Your task to perform on an android device: change your default location settings in chrome Image 0: 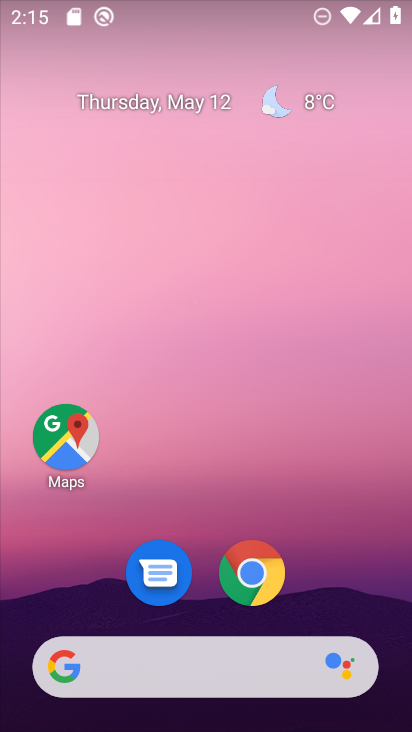
Step 0: drag from (387, 597) to (209, 190)
Your task to perform on an android device: change your default location settings in chrome Image 1: 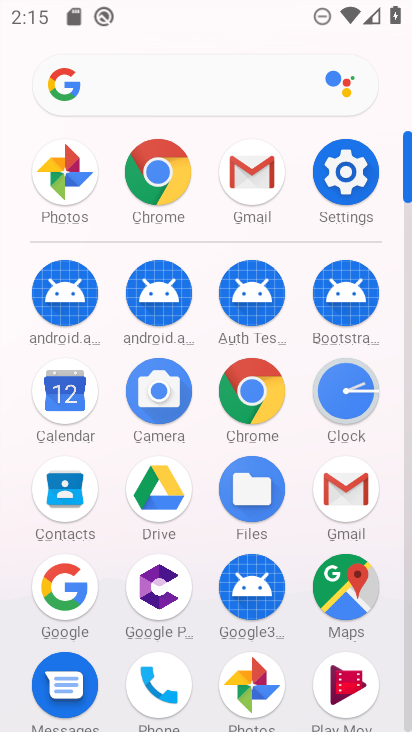
Step 1: click (269, 394)
Your task to perform on an android device: change your default location settings in chrome Image 2: 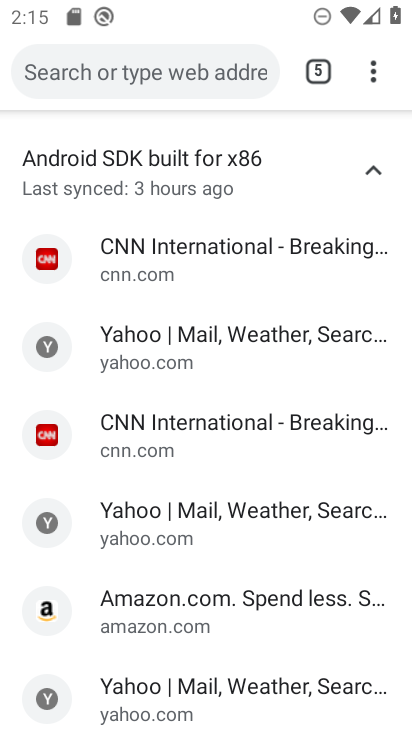
Step 2: press back button
Your task to perform on an android device: change your default location settings in chrome Image 3: 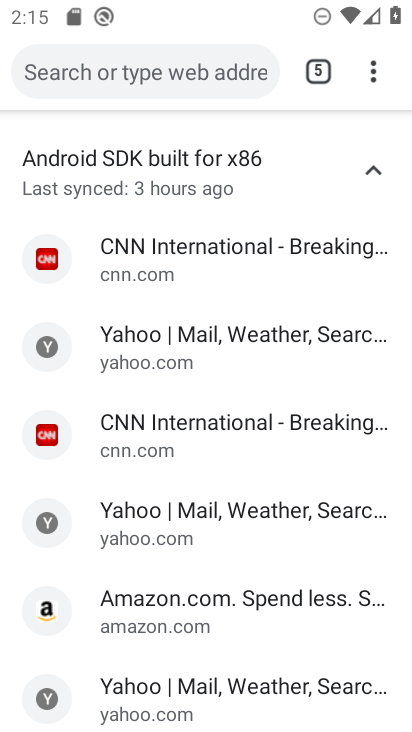
Step 3: press back button
Your task to perform on an android device: change your default location settings in chrome Image 4: 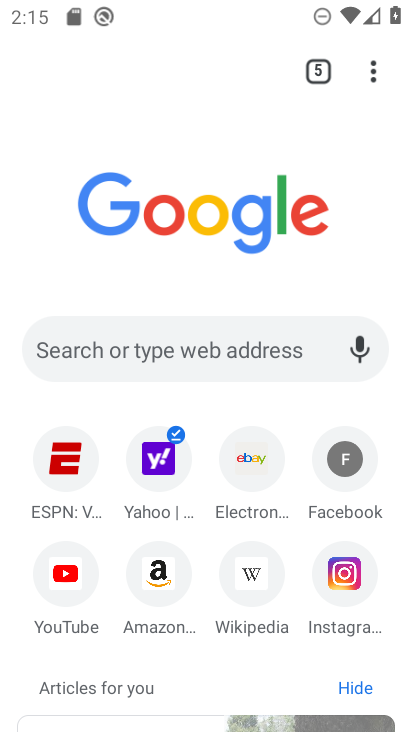
Step 4: press back button
Your task to perform on an android device: change your default location settings in chrome Image 5: 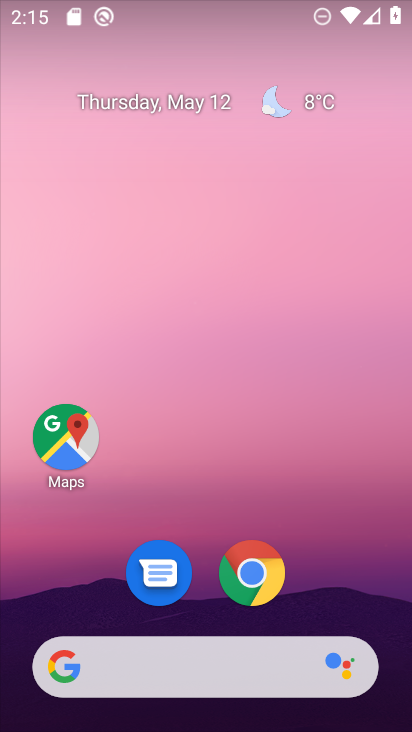
Step 5: drag from (322, 528) to (176, 168)
Your task to perform on an android device: change your default location settings in chrome Image 6: 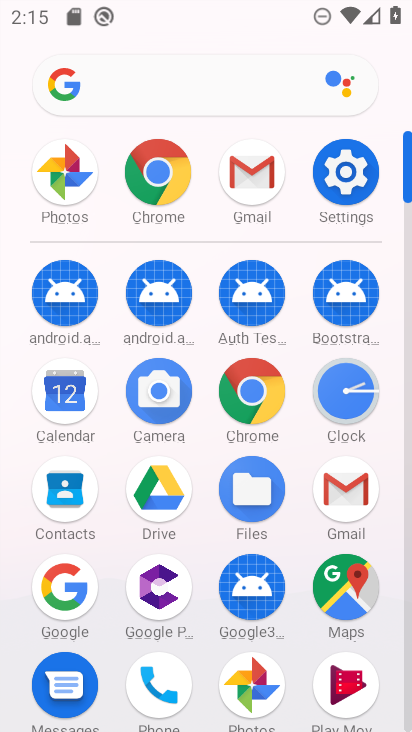
Step 6: click (164, 182)
Your task to perform on an android device: change your default location settings in chrome Image 7: 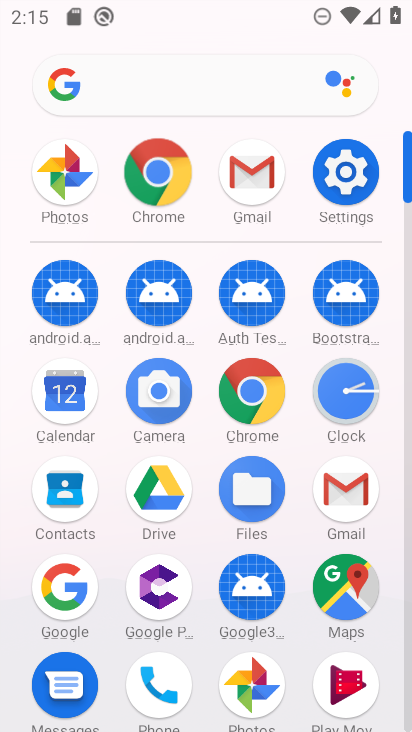
Step 7: click (164, 181)
Your task to perform on an android device: change your default location settings in chrome Image 8: 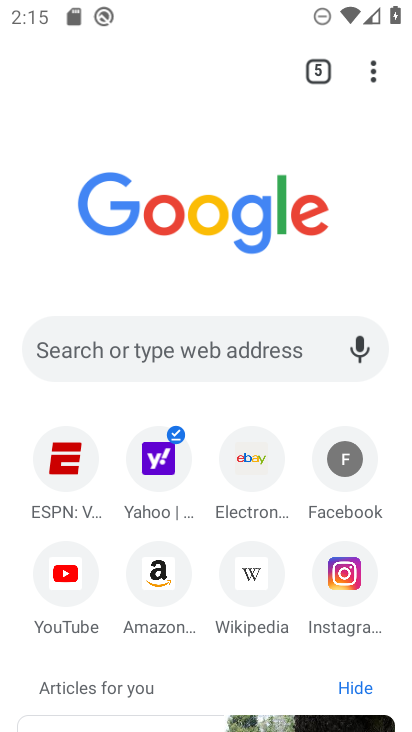
Step 8: drag from (373, 75) to (177, 143)
Your task to perform on an android device: change your default location settings in chrome Image 9: 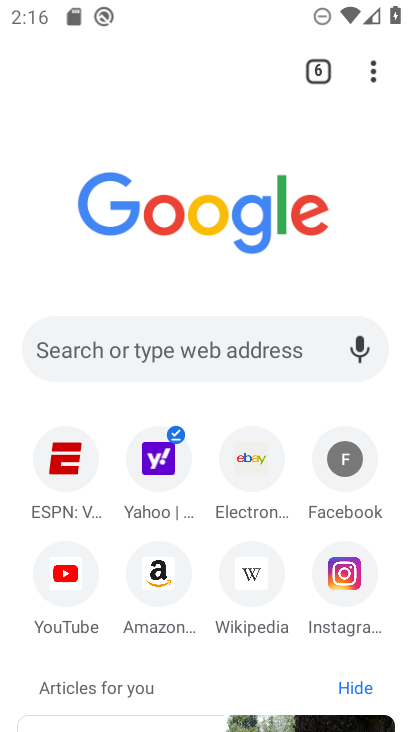
Step 9: drag from (371, 73) to (115, 610)
Your task to perform on an android device: change your default location settings in chrome Image 10: 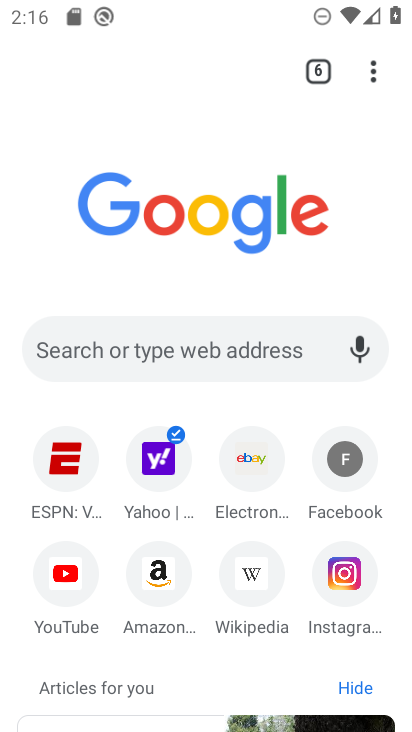
Step 10: click (121, 605)
Your task to perform on an android device: change your default location settings in chrome Image 11: 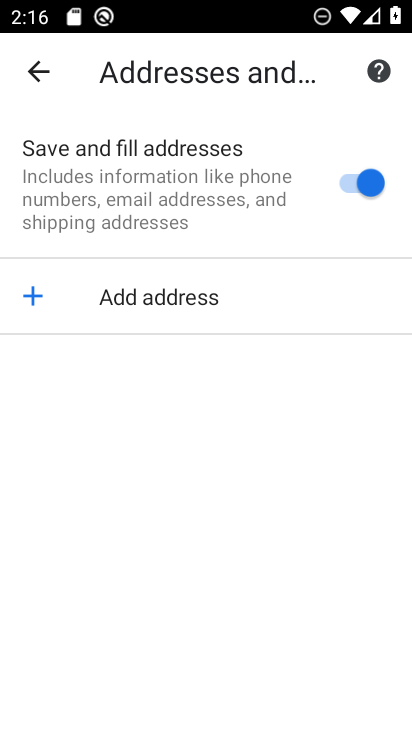
Step 11: click (42, 57)
Your task to perform on an android device: change your default location settings in chrome Image 12: 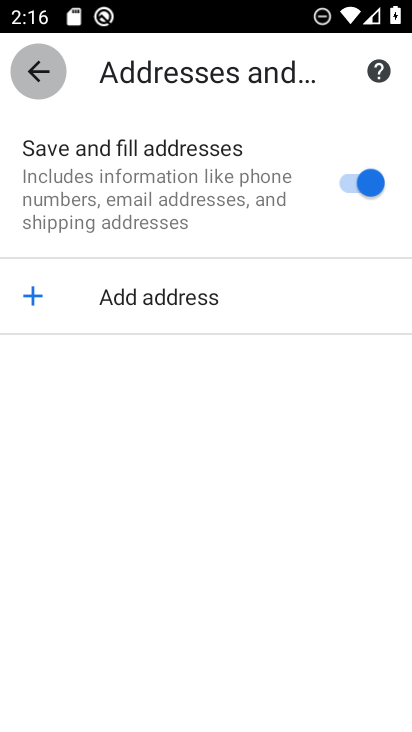
Step 12: click (36, 65)
Your task to perform on an android device: change your default location settings in chrome Image 13: 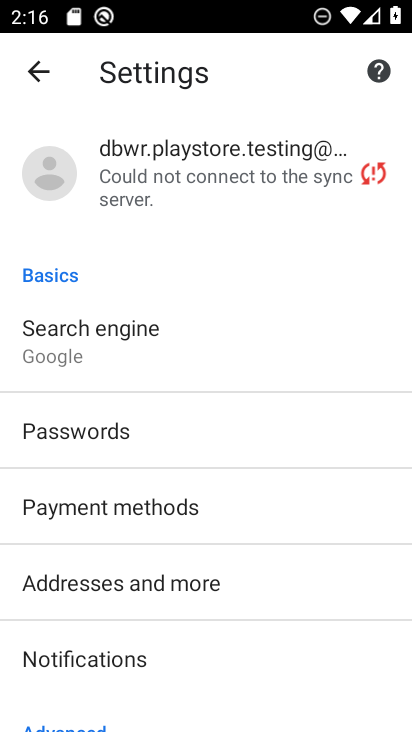
Step 13: drag from (206, 521) to (169, 191)
Your task to perform on an android device: change your default location settings in chrome Image 14: 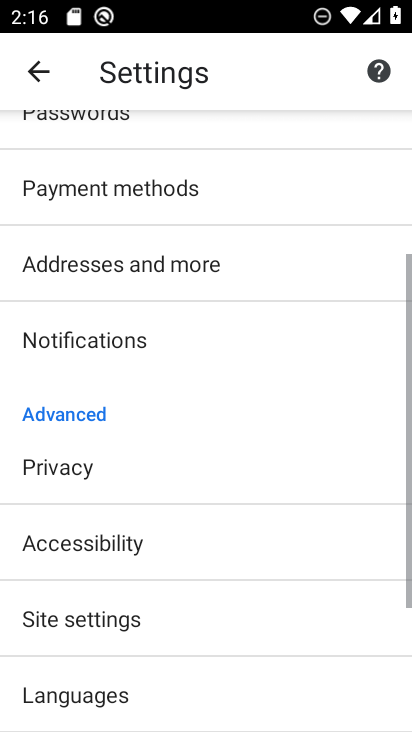
Step 14: drag from (179, 402) to (224, 22)
Your task to perform on an android device: change your default location settings in chrome Image 15: 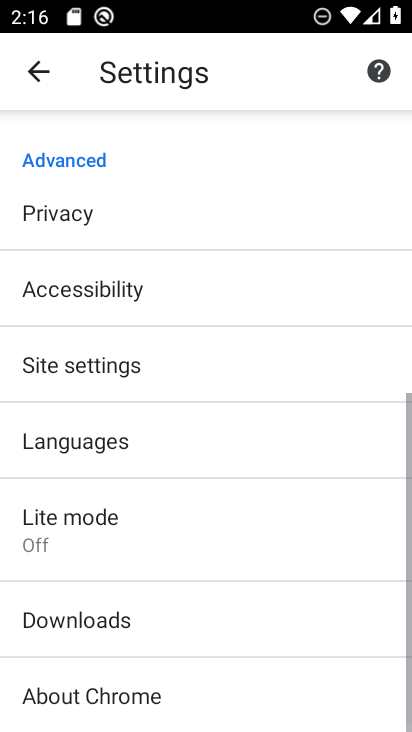
Step 15: drag from (220, 399) to (268, 147)
Your task to perform on an android device: change your default location settings in chrome Image 16: 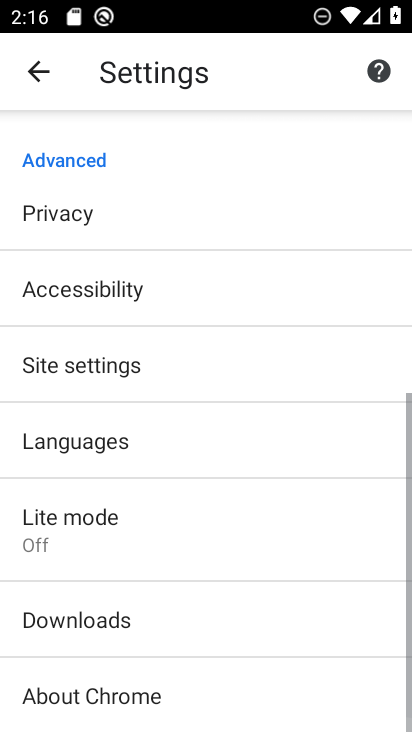
Step 16: drag from (150, 458) to (115, 194)
Your task to perform on an android device: change your default location settings in chrome Image 17: 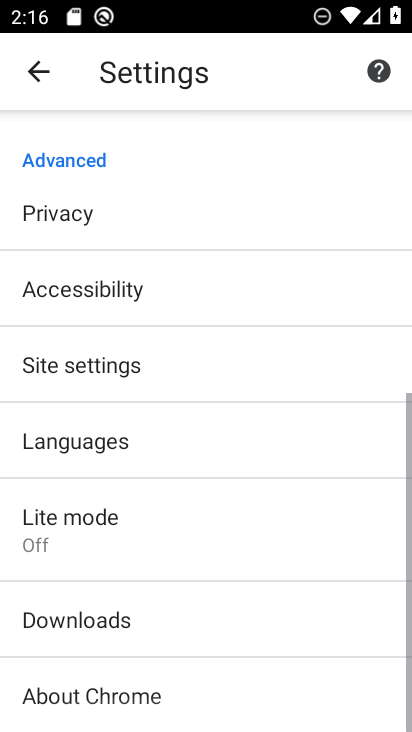
Step 17: drag from (154, 371) to (157, 133)
Your task to perform on an android device: change your default location settings in chrome Image 18: 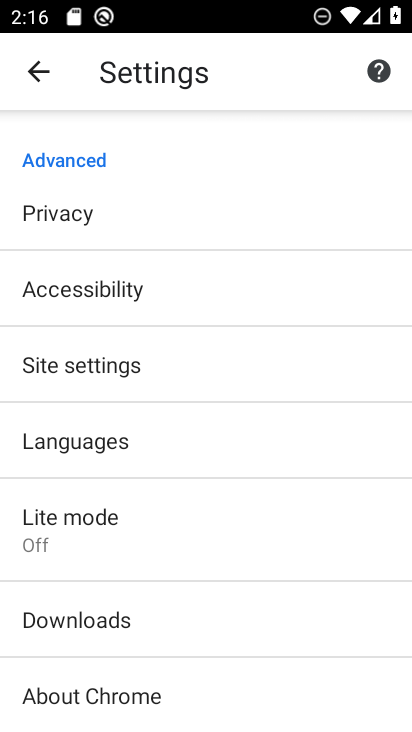
Step 18: drag from (198, 446) to (127, 171)
Your task to perform on an android device: change your default location settings in chrome Image 19: 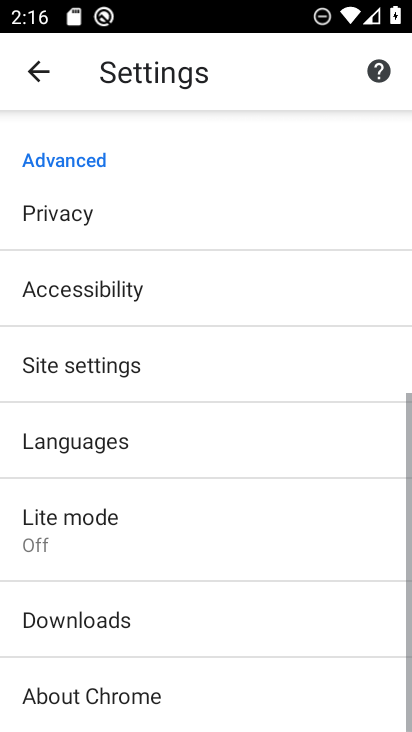
Step 19: drag from (176, 442) to (88, 133)
Your task to perform on an android device: change your default location settings in chrome Image 20: 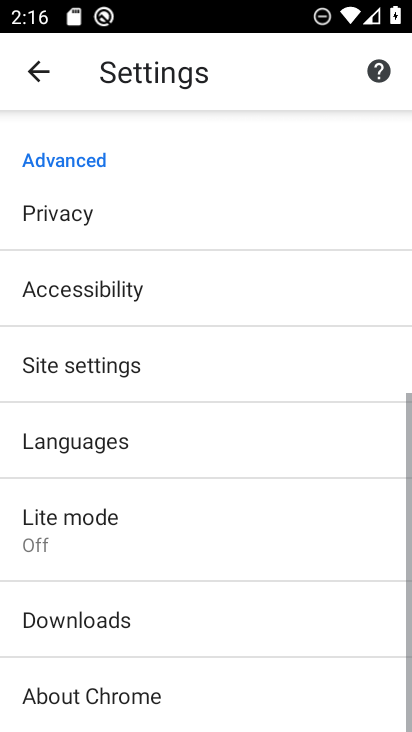
Step 20: drag from (135, 421) to (92, 147)
Your task to perform on an android device: change your default location settings in chrome Image 21: 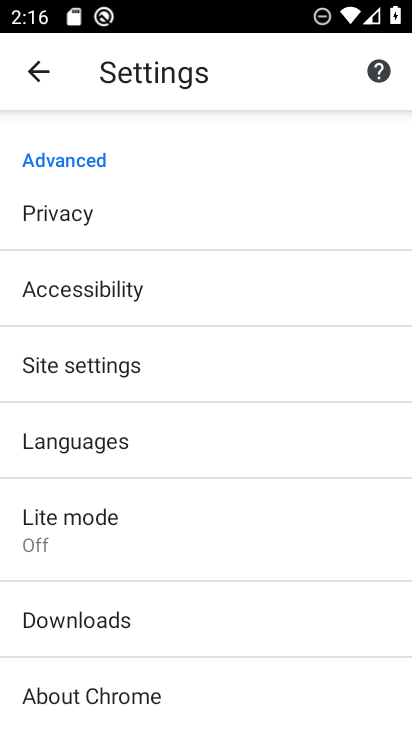
Step 21: drag from (123, 485) to (16, 111)
Your task to perform on an android device: change your default location settings in chrome Image 22: 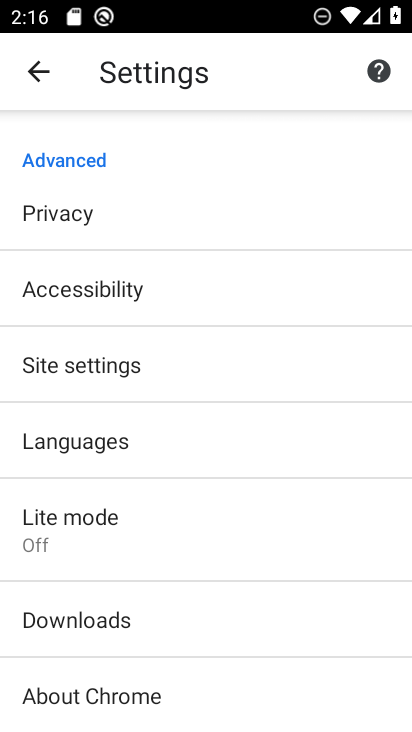
Step 22: drag from (162, 541) to (84, 95)
Your task to perform on an android device: change your default location settings in chrome Image 23: 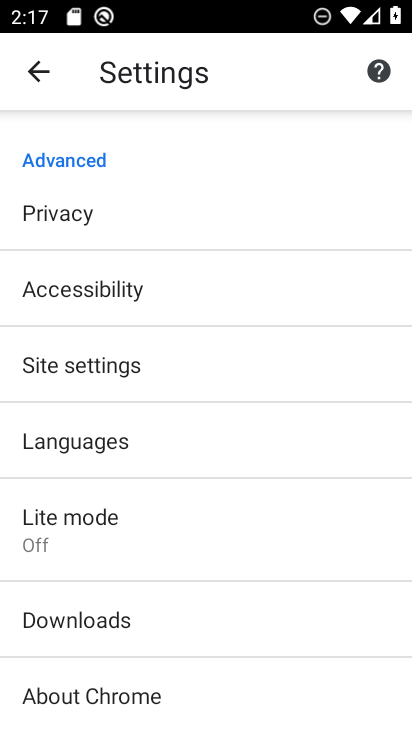
Step 23: click (99, 442)
Your task to perform on an android device: change your default location settings in chrome Image 24: 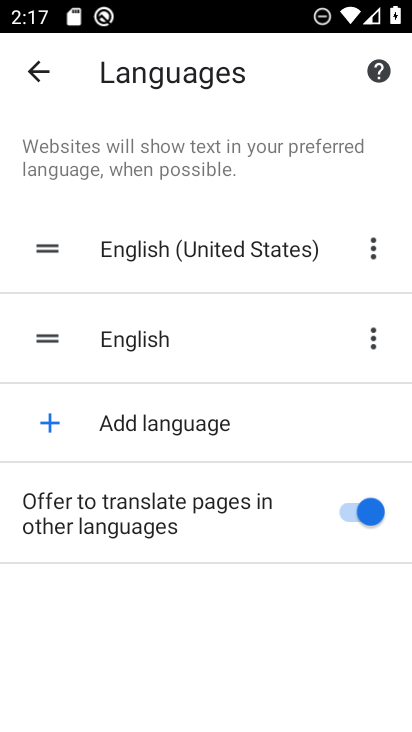
Step 24: click (28, 75)
Your task to perform on an android device: change your default location settings in chrome Image 25: 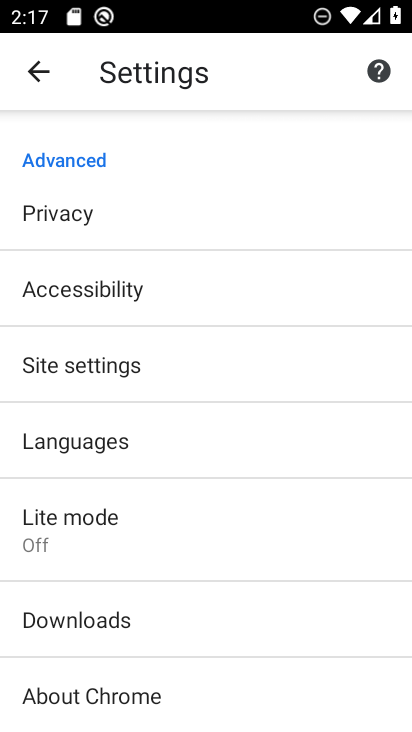
Step 25: click (68, 363)
Your task to perform on an android device: change your default location settings in chrome Image 26: 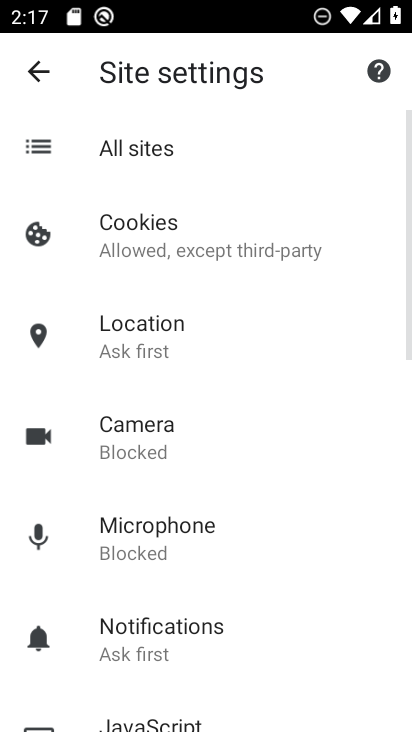
Step 26: click (111, 340)
Your task to perform on an android device: change your default location settings in chrome Image 27: 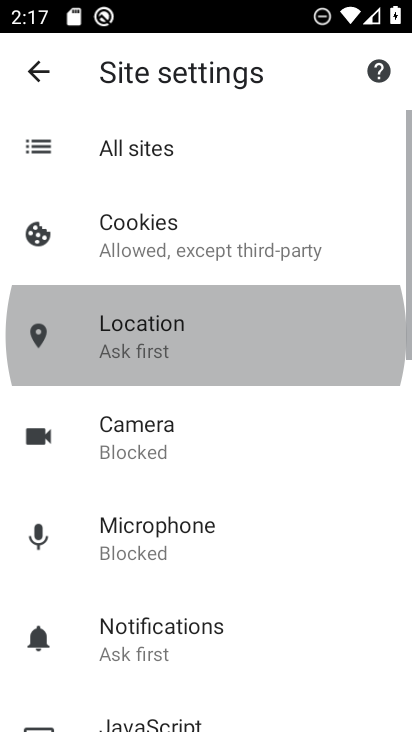
Step 27: click (115, 340)
Your task to perform on an android device: change your default location settings in chrome Image 28: 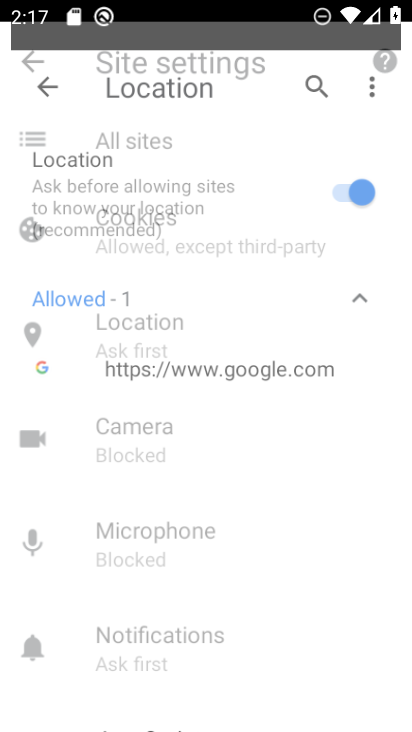
Step 28: click (115, 340)
Your task to perform on an android device: change your default location settings in chrome Image 29: 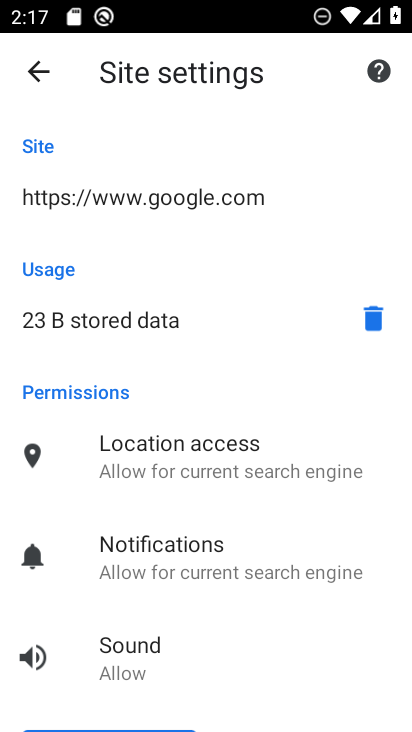
Step 29: click (35, 74)
Your task to perform on an android device: change your default location settings in chrome Image 30: 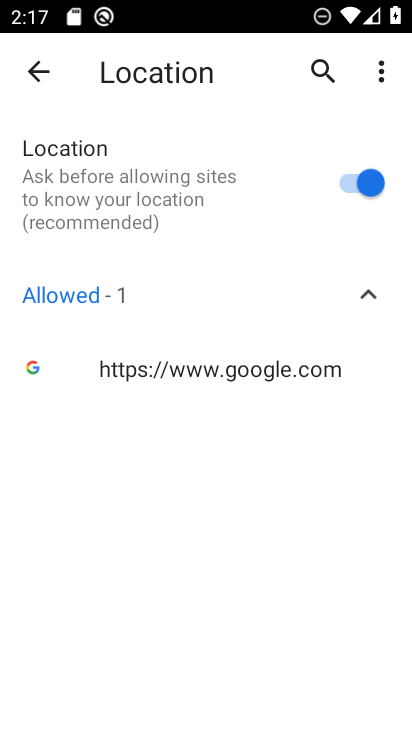
Step 30: click (352, 179)
Your task to perform on an android device: change your default location settings in chrome Image 31: 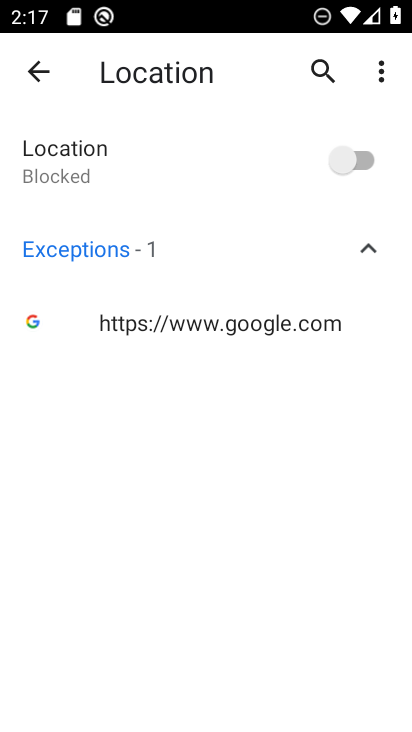
Step 31: task complete